Your task to perform on an android device: toggle notification dots Image 0: 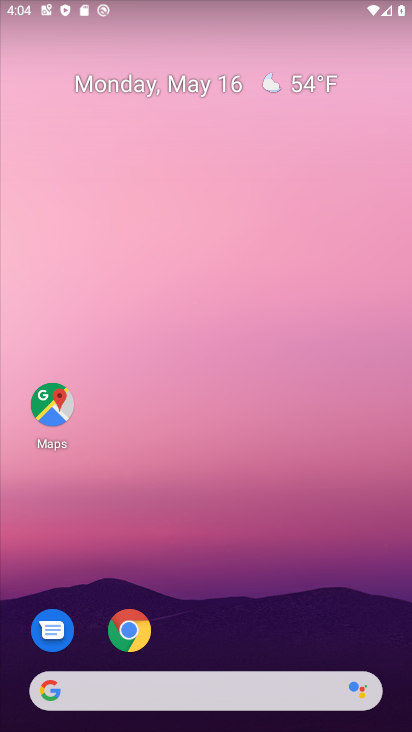
Step 0: drag from (278, 638) to (198, 122)
Your task to perform on an android device: toggle notification dots Image 1: 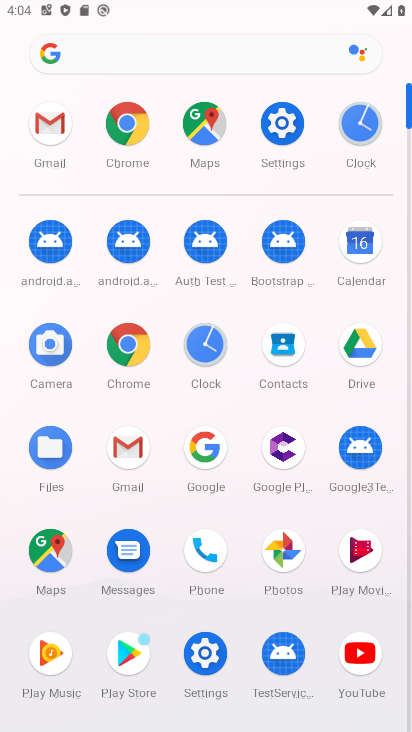
Step 1: click (278, 121)
Your task to perform on an android device: toggle notification dots Image 2: 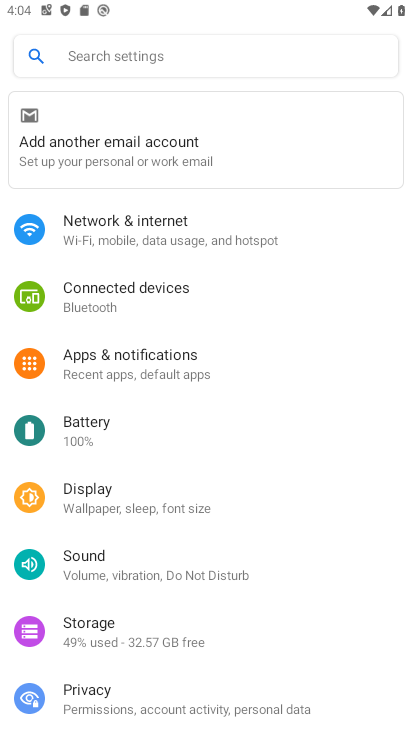
Step 2: click (207, 361)
Your task to perform on an android device: toggle notification dots Image 3: 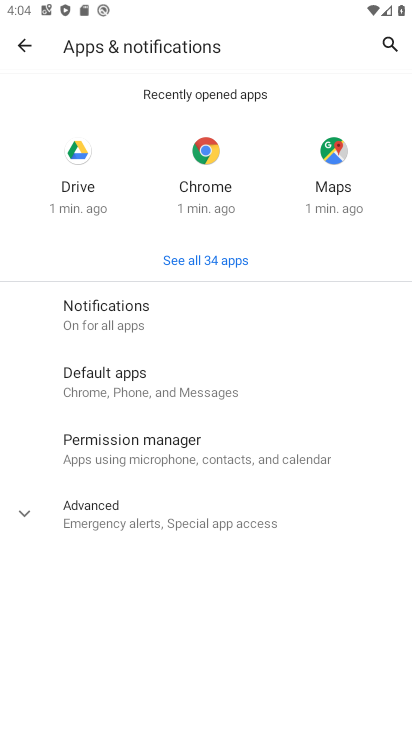
Step 3: click (186, 320)
Your task to perform on an android device: toggle notification dots Image 4: 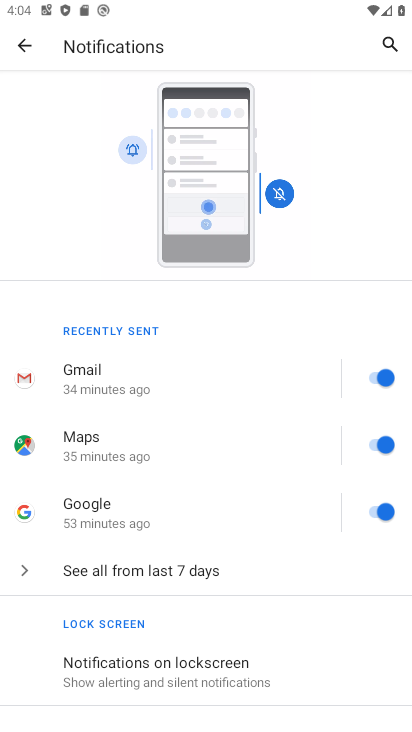
Step 4: drag from (201, 687) to (210, 398)
Your task to perform on an android device: toggle notification dots Image 5: 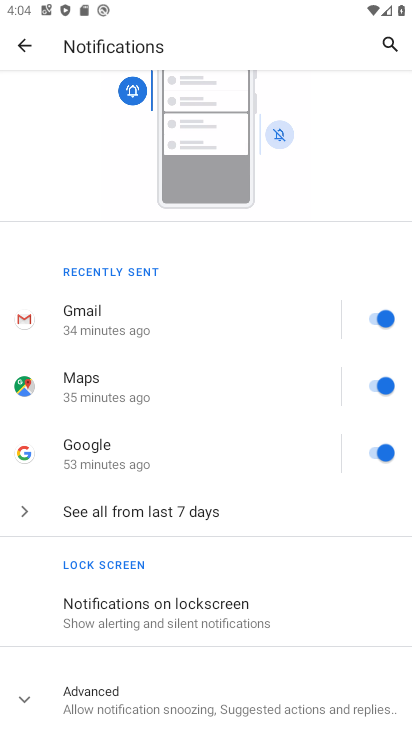
Step 5: click (224, 689)
Your task to perform on an android device: toggle notification dots Image 6: 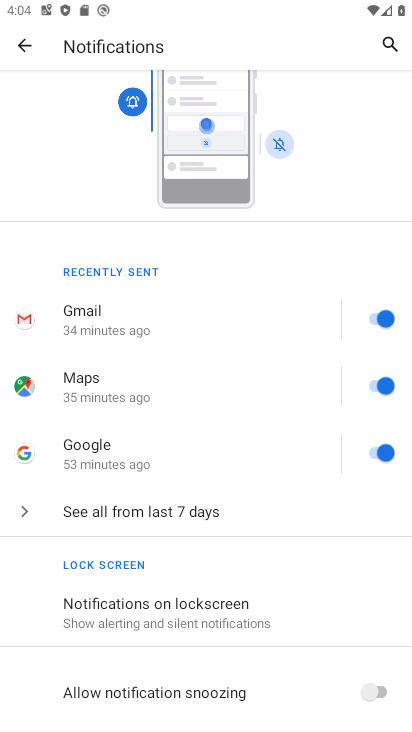
Step 6: drag from (224, 689) to (220, 467)
Your task to perform on an android device: toggle notification dots Image 7: 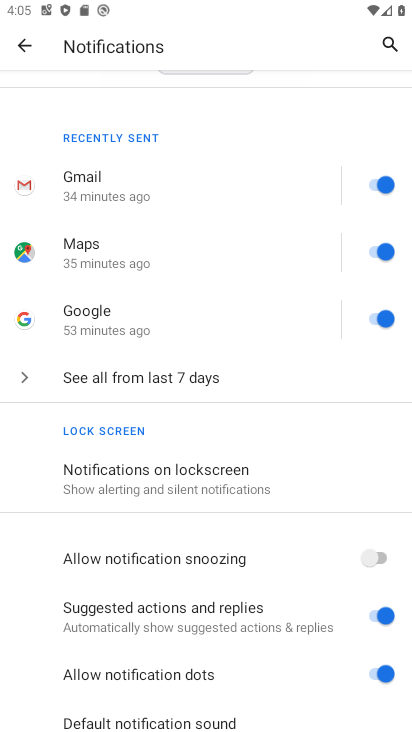
Step 7: click (375, 679)
Your task to perform on an android device: toggle notification dots Image 8: 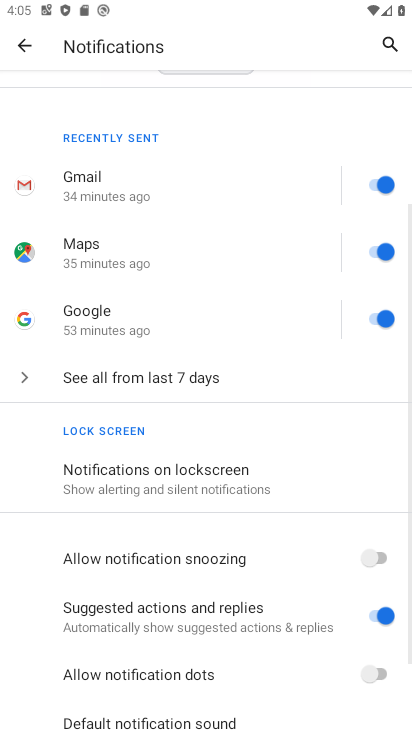
Step 8: task complete